Your task to perform on an android device: Open ESPN.com Image 0: 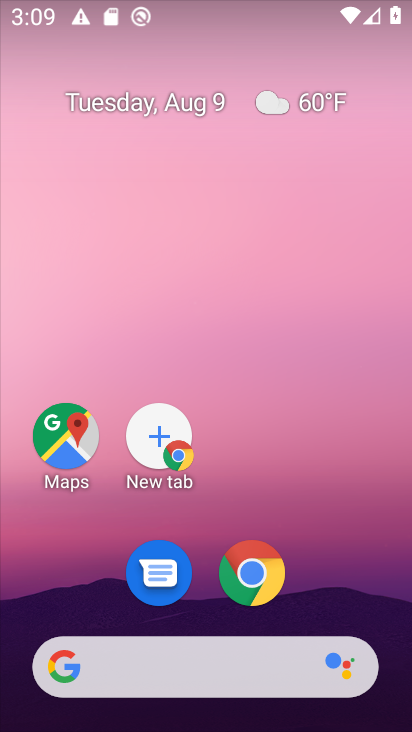
Step 0: click (193, 348)
Your task to perform on an android device: Open ESPN.com Image 1: 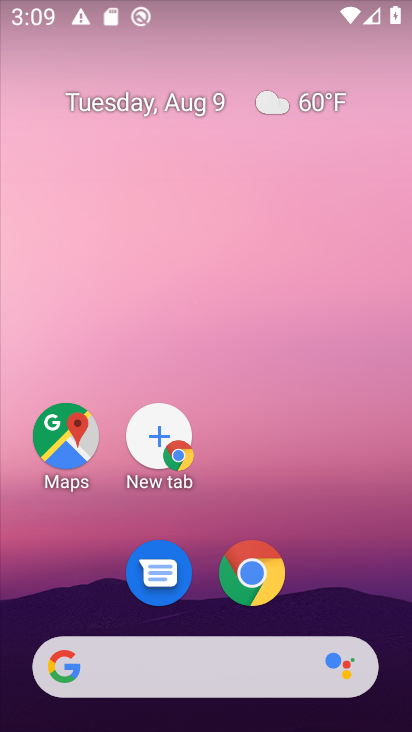
Step 1: drag from (276, 639) to (219, 138)
Your task to perform on an android device: Open ESPN.com Image 2: 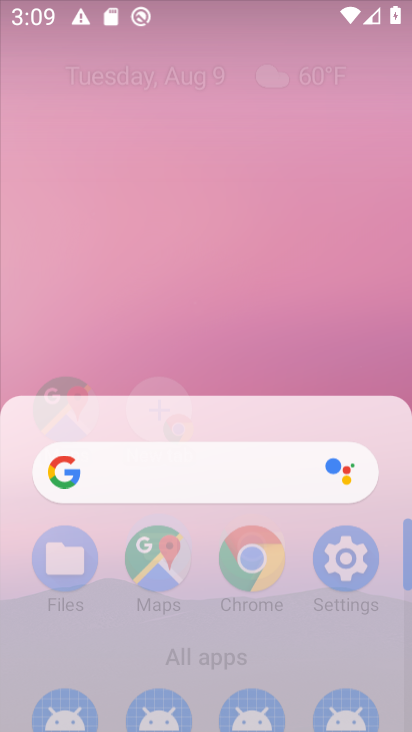
Step 2: drag from (280, 557) to (208, 147)
Your task to perform on an android device: Open ESPN.com Image 3: 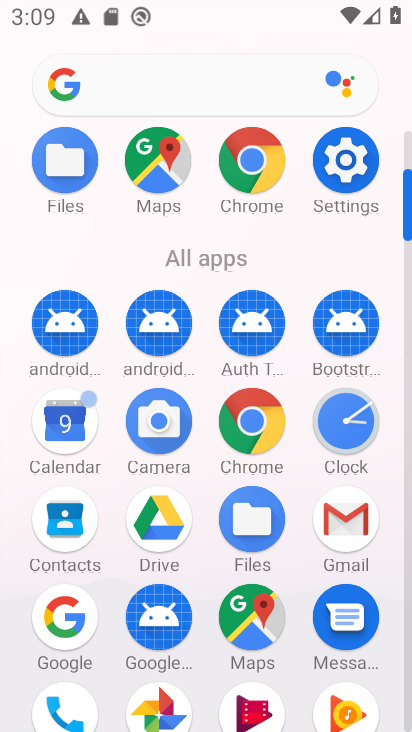
Step 3: drag from (175, 615) to (139, 231)
Your task to perform on an android device: Open ESPN.com Image 4: 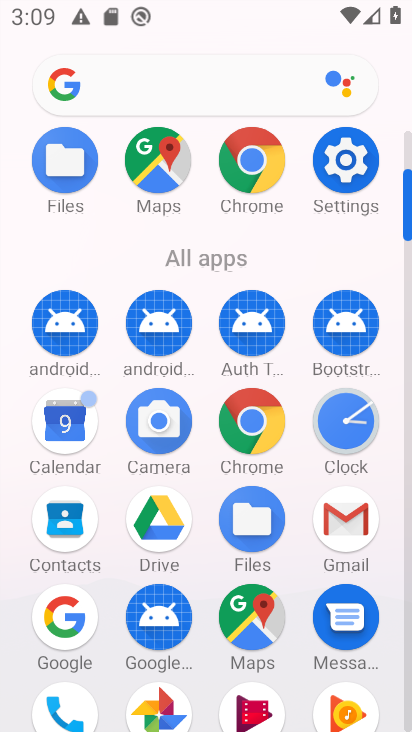
Step 4: click (254, 177)
Your task to perform on an android device: Open ESPN.com Image 5: 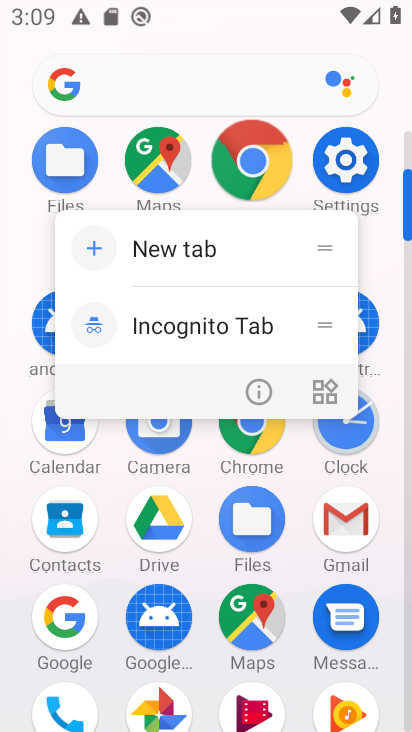
Step 5: click (272, 174)
Your task to perform on an android device: Open ESPN.com Image 6: 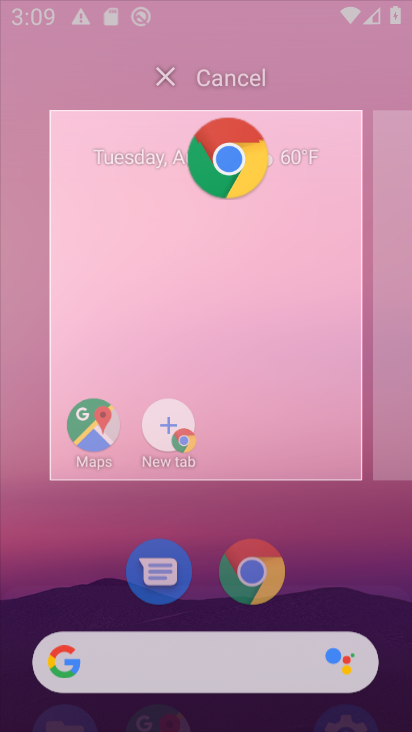
Step 6: click (256, 166)
Your task to perform on an android device: Open ESPN.com Image 7: 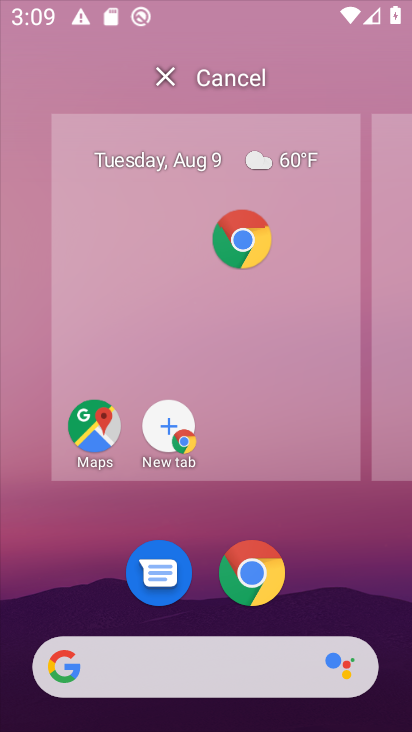
Step 7: click (257, 165)
Your task to perform on an android device: Open ESPN.com Image 8: 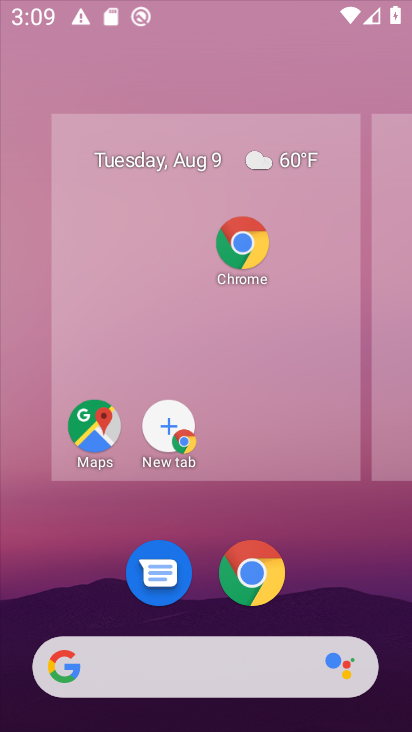
Step 8: drag from (258, 165) to (246, 224)
Your task to perform on an android device: Open ESPN.com Image 9: 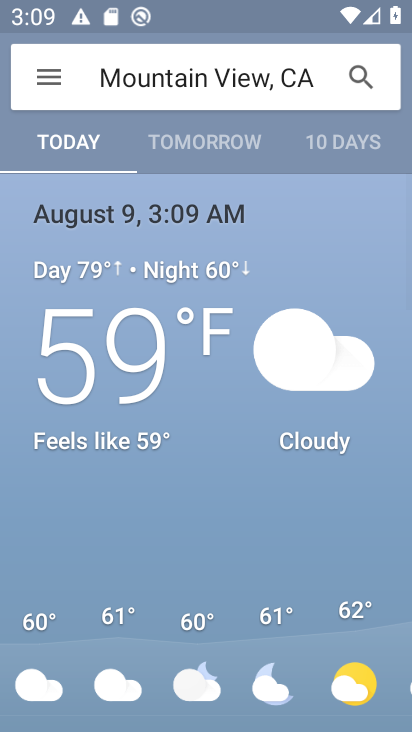
Step 9: drag from (368, 64) to (410, 488)
Your task to perform on an android device: Open ESPN.com Image 10: 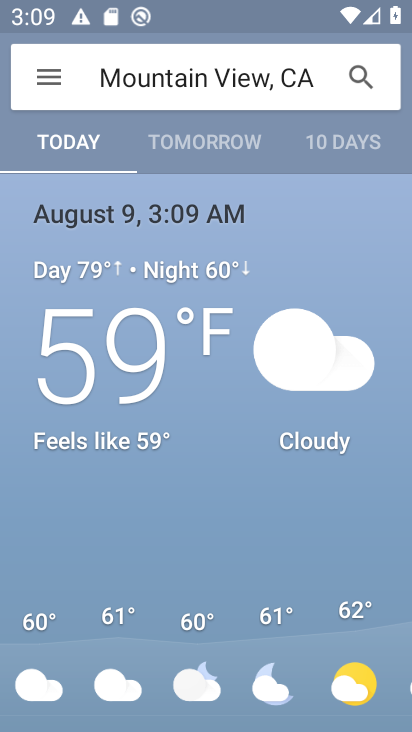
Step 10: press back button
Your task to perform on an android device: Open ESPN.com Image 11: 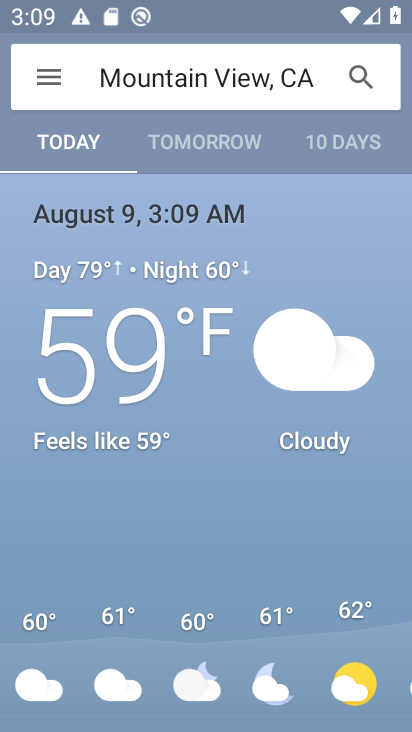
Step 11: press back button
Your task to perform on an android device: Open ESPN.com Image 12: 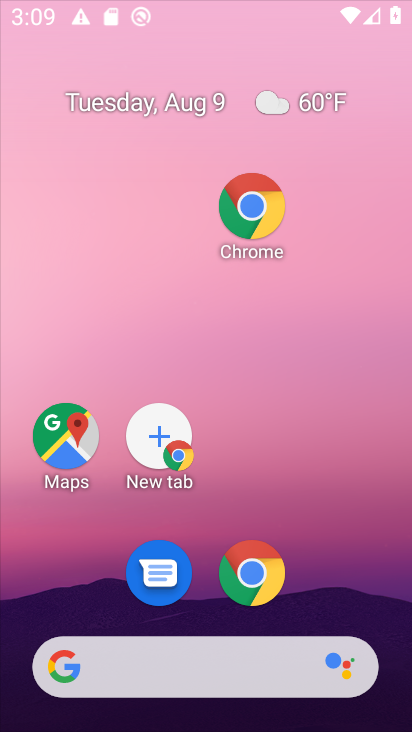
Step 12: press back button
Your task to perform on an android device: Open ESPN.com Image 13: 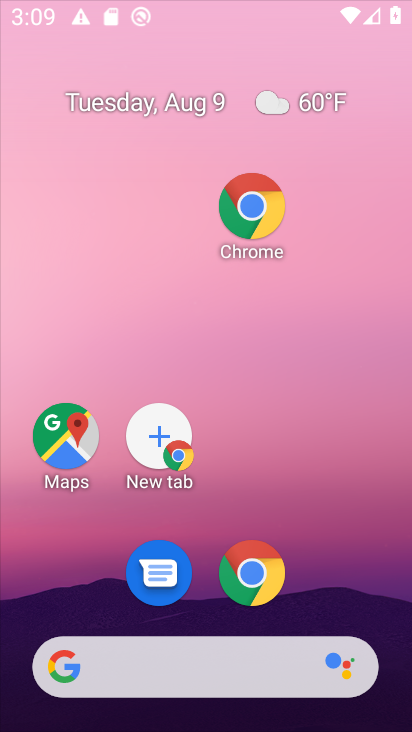
Step 13: click (403, 300)
Your task to perform on an android device: Open ESPN.com Image 14: 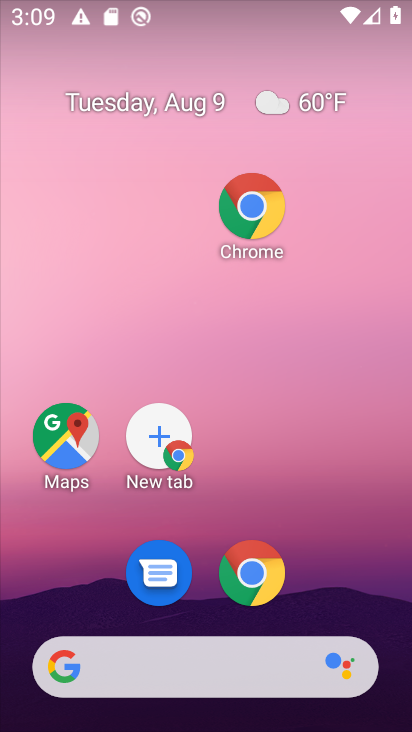
Step 14: click (215, 16)
Your task to perform on an android device: Open ESPN.com Image 15: 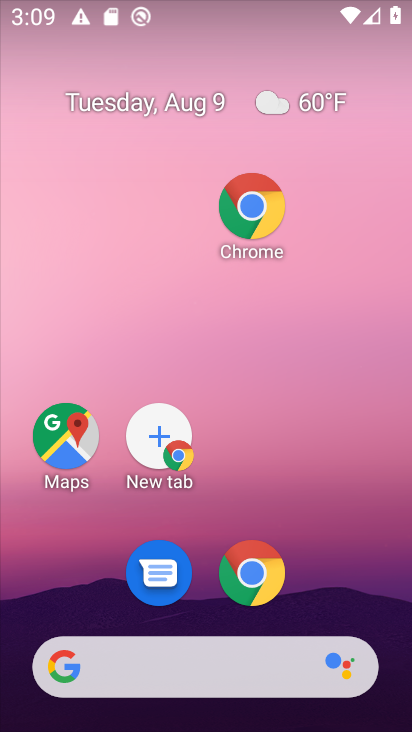
Step 15: drag from (215, 536) to (211, 86)
Your task to perform on an android device: Open ESPN.com Image 16: 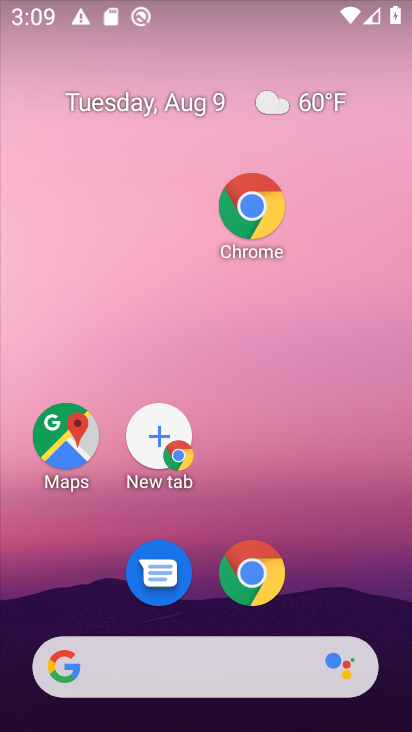
Step 16: drag from (247, 525) to (230, 196)
Your task to perform on an android device: Open ESPN.com Image 17: 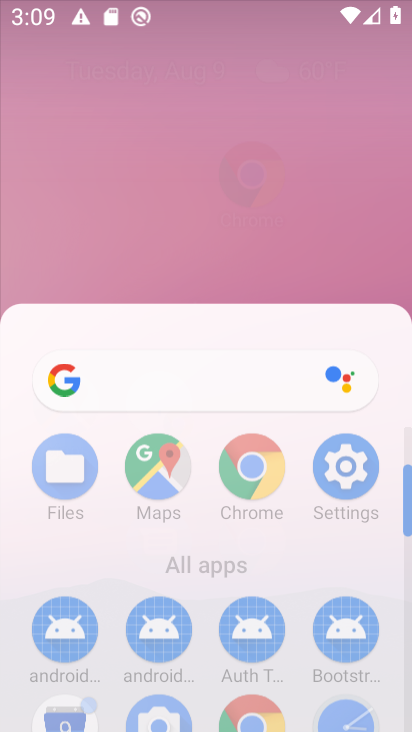
Step 17: drag from (230, 579) to (236, 93)
Your task to perform on an android device: Open ESPN.com Image 18: 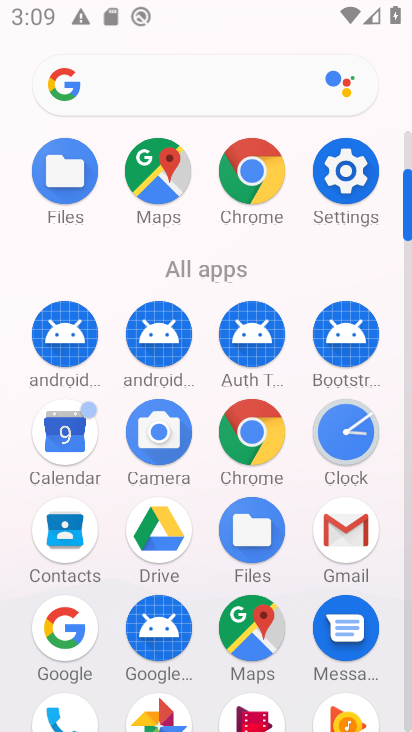
Step 18: drag from (260, 480) to (256, 0)
Your task to perform on an android device: Open ESPN.com Image 19: 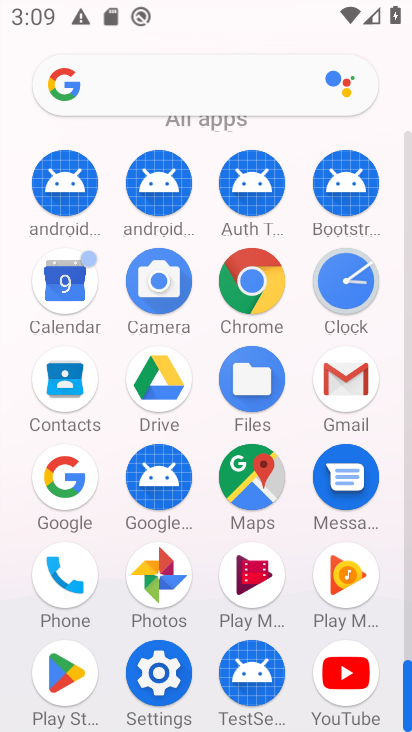
Step 19: click (245, 295)
Your task to perform on an android device: Open ESPN.com Image 20: 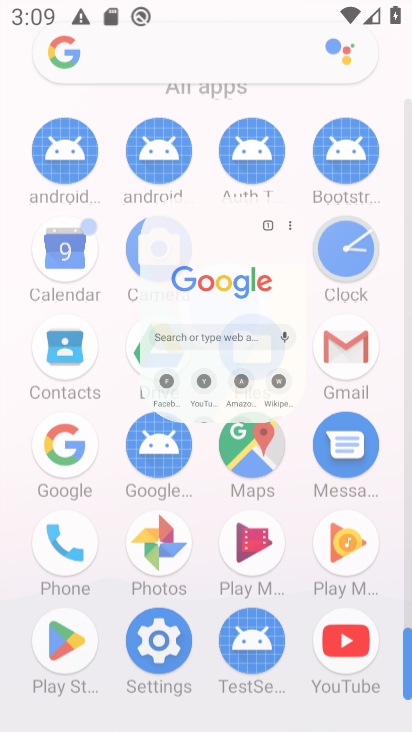
Step 20: click (247, 293)
Your task to perform on an android device: Open ESPN.com Image 21: 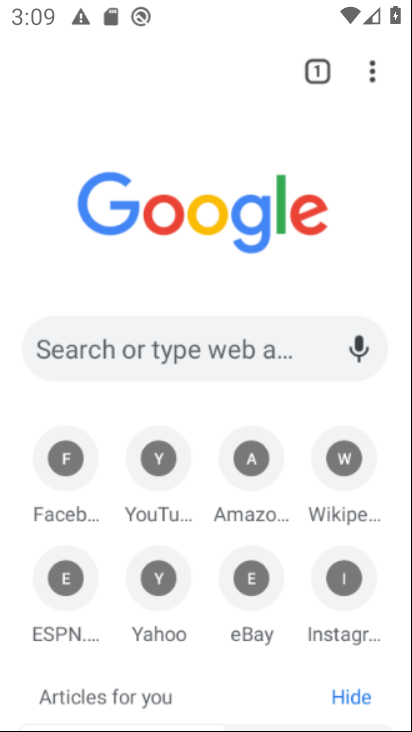
Step 21: click (247, 293)
Your task to perform on an android device: Open ESPN.com Image 22: 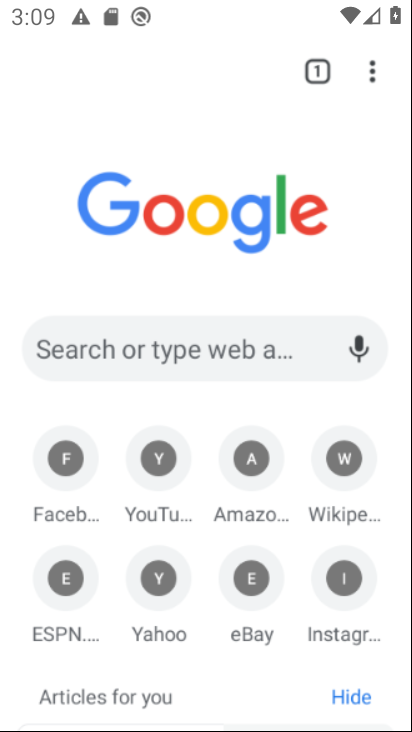
Step 22: click (71, 605)
Your task to perform on an android device: Open ESPN.com Image 23: 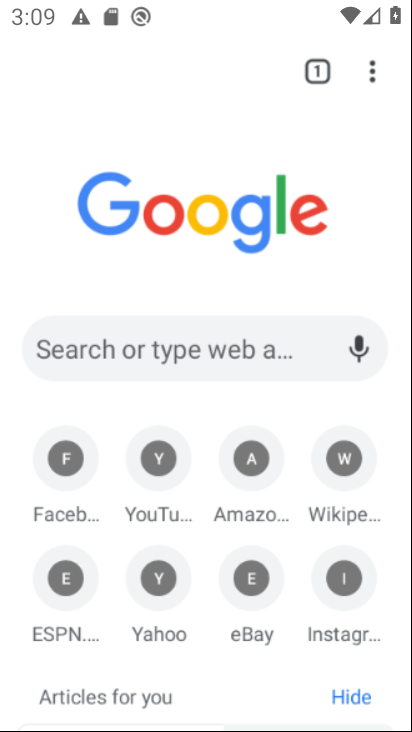
Step 23: click (65, 602)
Your task to perform on an android device: Open ESPN.com Image 24: 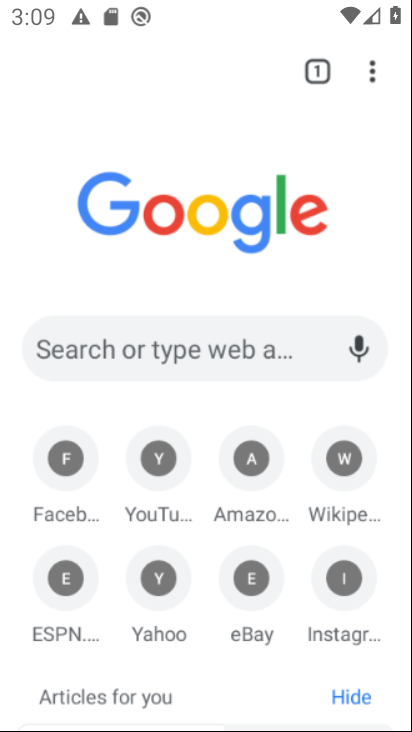
Step 24: click (64, 604)
Your task to perform on an android device: Open ESPN.com Image 25: 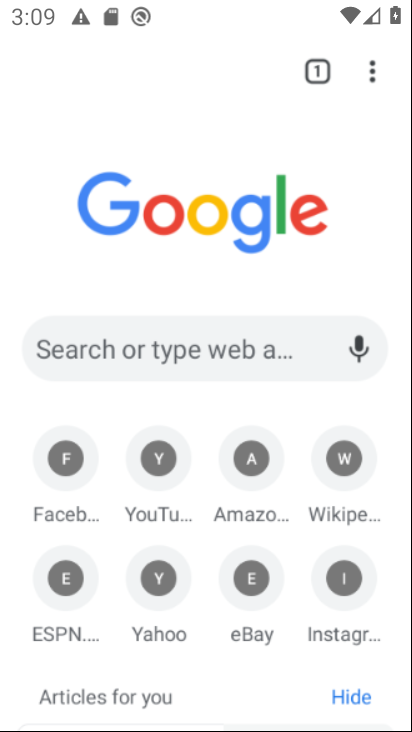
Step 25: click (68, 592)
Your task to perform on an android device: Open ESPN.com Image 26: 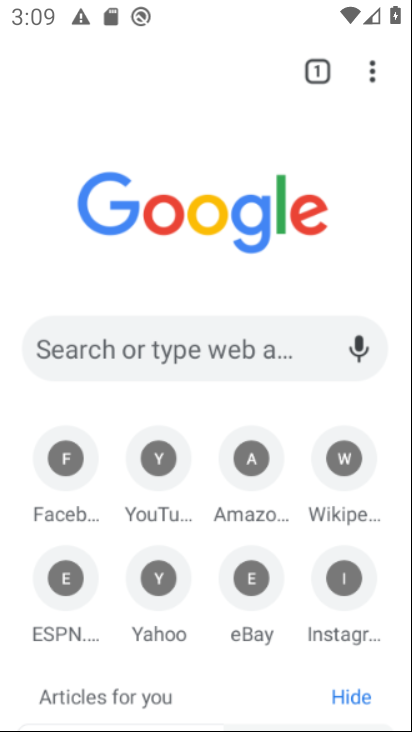
Step 26: click (67, 565)
Your task to perform on an android device: Open ESPN.com Image 27: 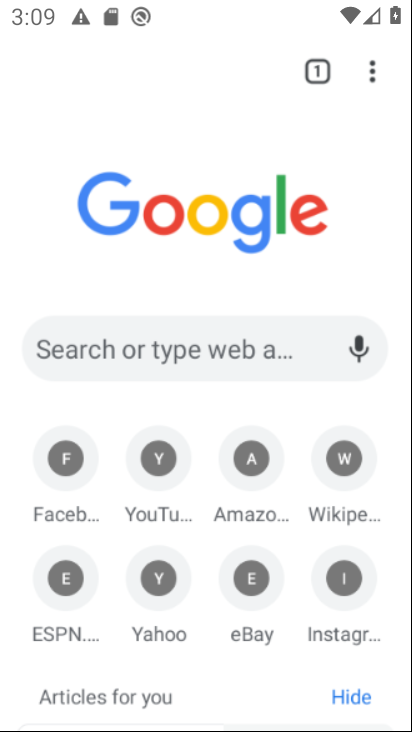
Step 27: click (65, 591)
Your task to perform on an android device: Open ESPN.com Image 28: 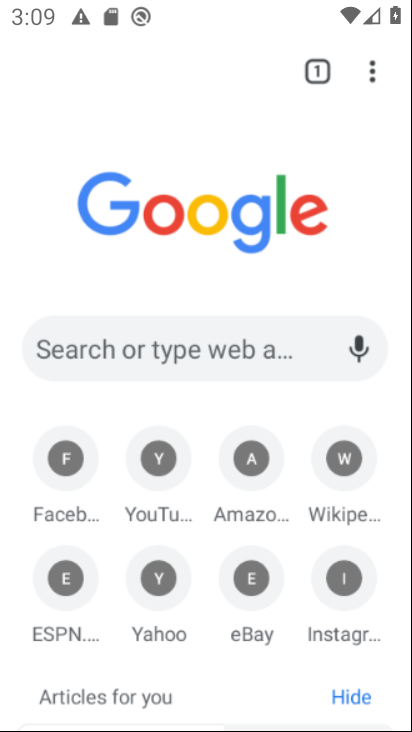
Step 28: click (62, 587)
Your task to perform on an android device: Open ESPN.com Image 29: 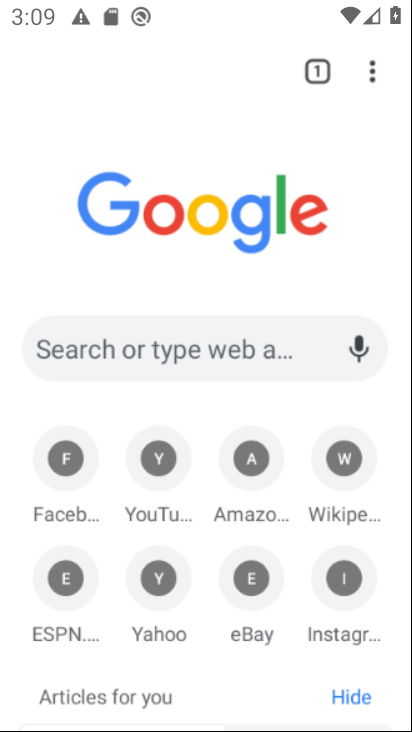
Step 29: click (66, 619)
Your task to perform on an android device: Open ESPN.com Image 30: 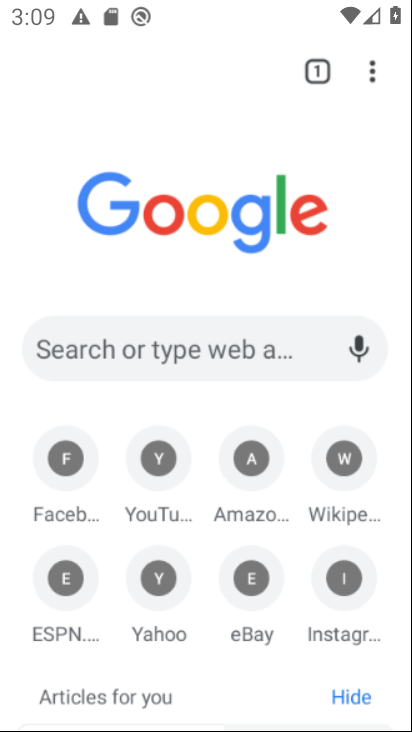
Step 30: click (65, 615)
Your task to perform on an android device: Open ESPN.com Image 31: 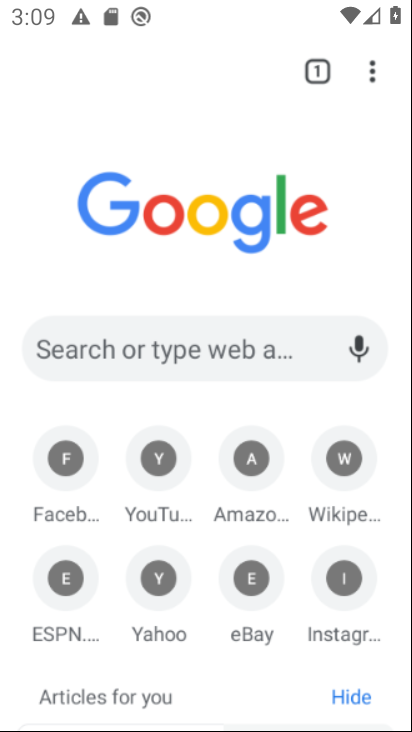
Step 31: click (58, 571)
Your task to perform on an android device: Open ESPN.com Image 32: 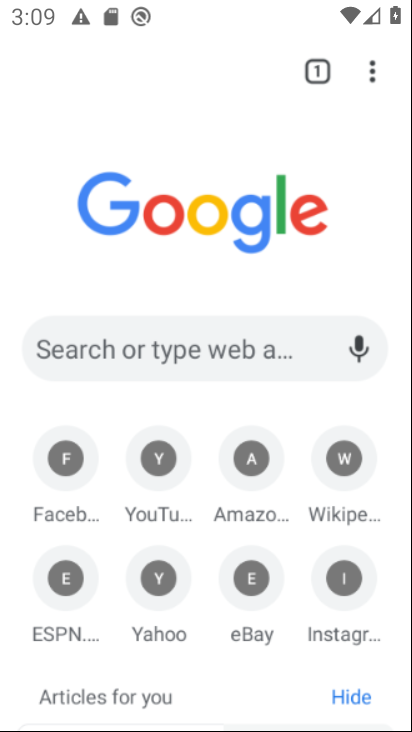
Step 32: click (57, 573)
Your task to perform on an android device: Open ESPN.com Image 33: 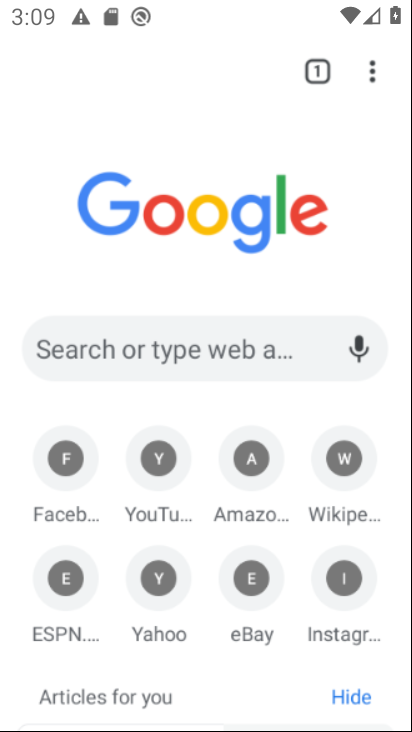
Step 33: click (57, 573)
Your task to perform on an android device: Open ESPN.com Image 34: 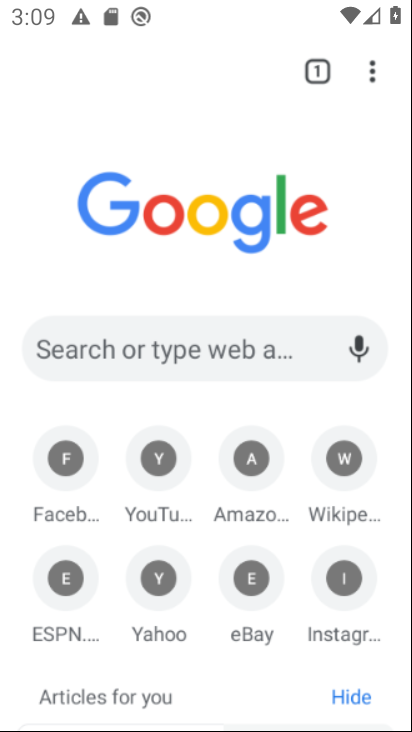
Step 34: click (50, 575)
Your task to perform on an android device: Open ESPN.com Image 35: 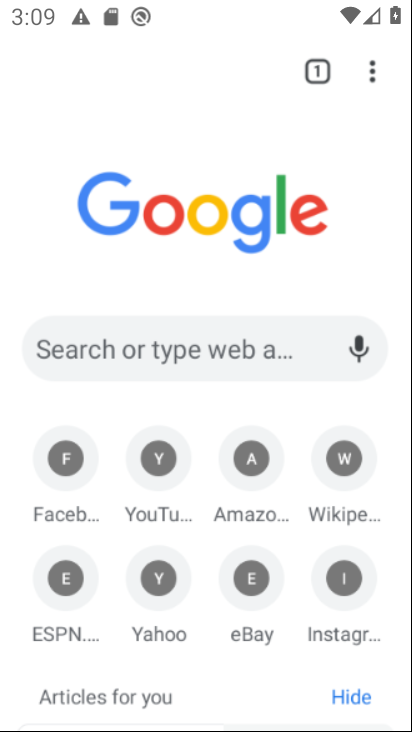
Step 35: click (56, 571)
Your task to perform on an android device: Open ESPN.com Image 36: 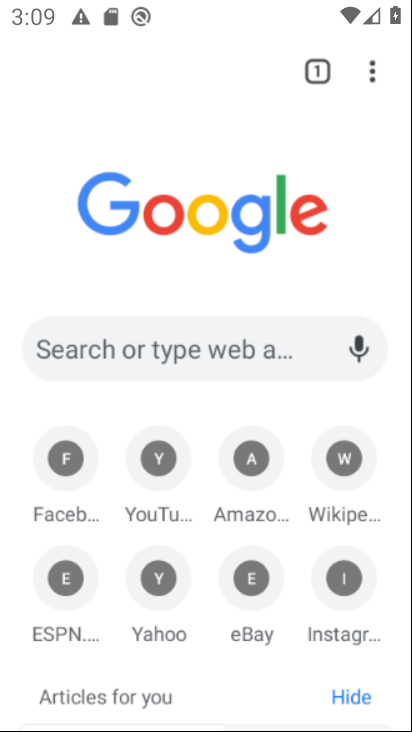
Step 36: click (68, 597)
Your task to perform on an android device: Open ESPN.com Image 37: 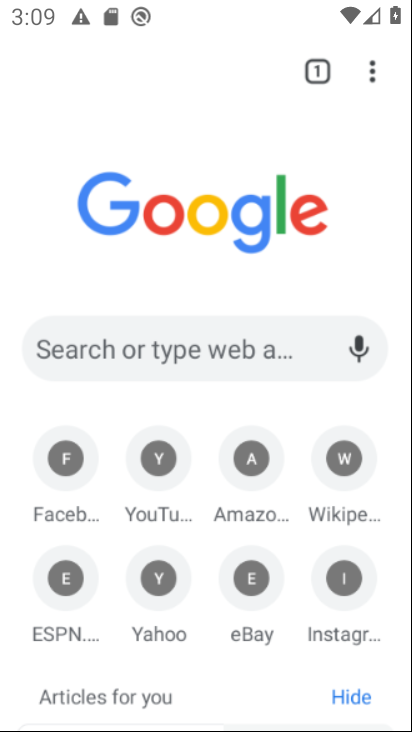
Step 37: click (64, 590)
Your task to perform on an android device: Open ESPN.com Image 38: 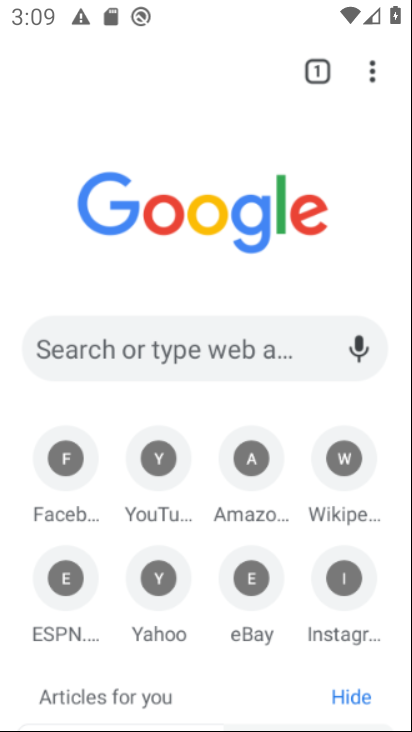
Step 38: click (67, 590)
Your task to perform on an android device: Open ESPN.com Image 39: 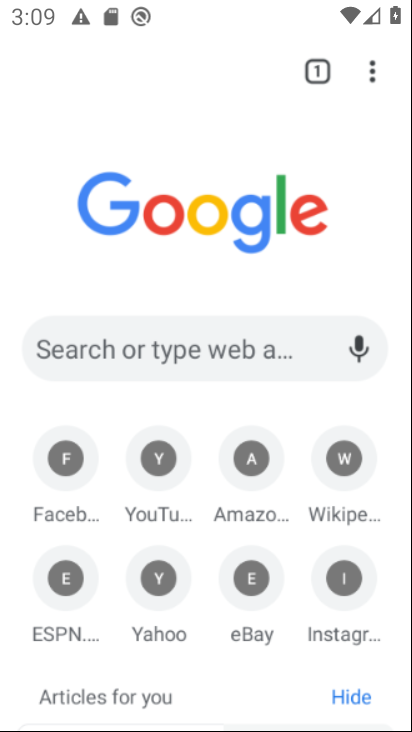
Step 39: click (89, 588)
Your task to perform on an android device: Open ESPN.com Image 40: 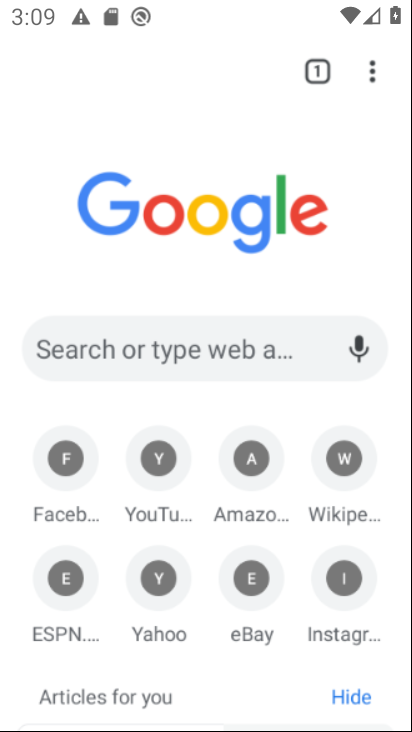
Step 40: click (70, 585)
Your task to perform on an android device: Open ESPN.com Image 41: 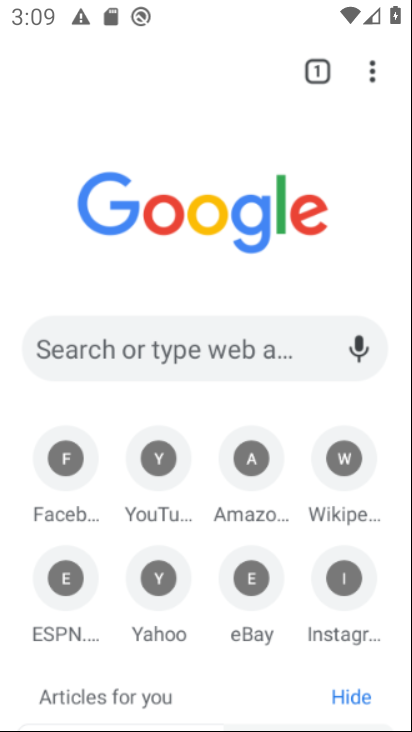
Step 41: click (63, 576)
Your task to perform on an android device: Open ESPN.com Image 42: 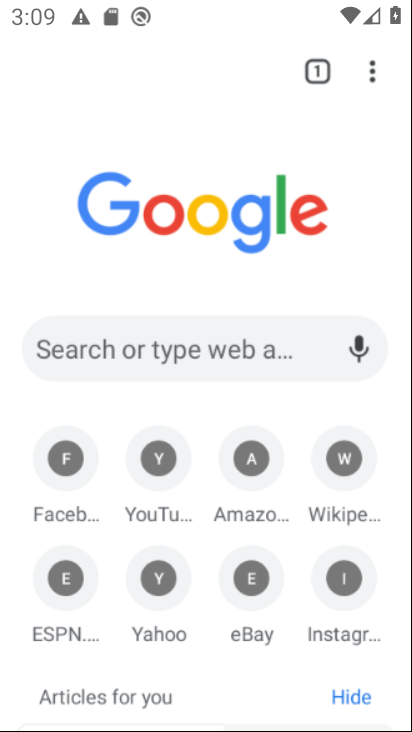
Step 42: click (67, 572)
Your task to perform on an android device: Open ESPN.com Image 43: 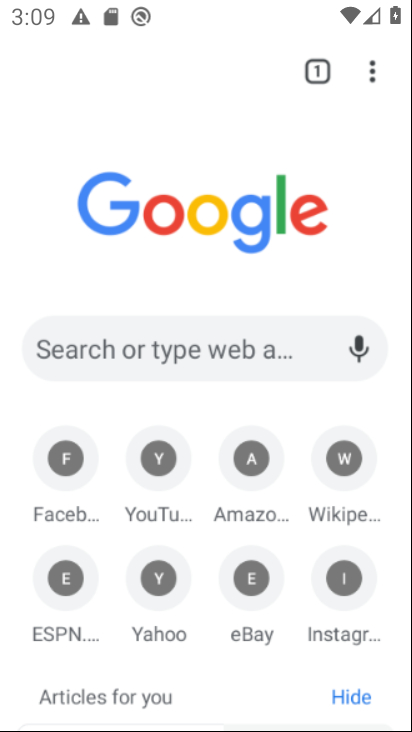
Step 43: click (62, 595)
Your task to perform on an android device: Open ESPN.com Image 44: 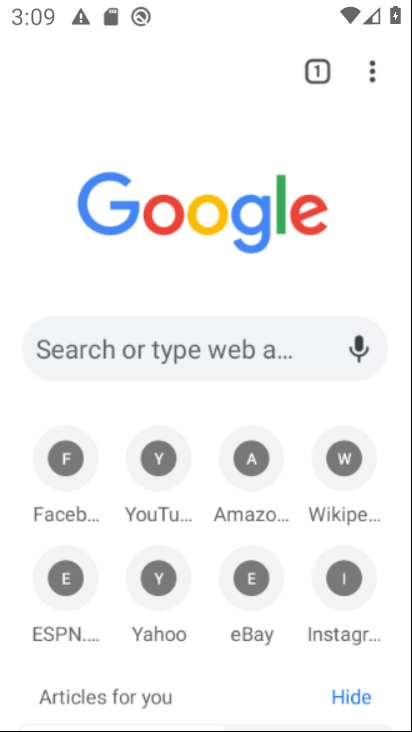
Step 44: click (99, 343)
Your task to perform on an android device: Open ESPN.com Image 45: 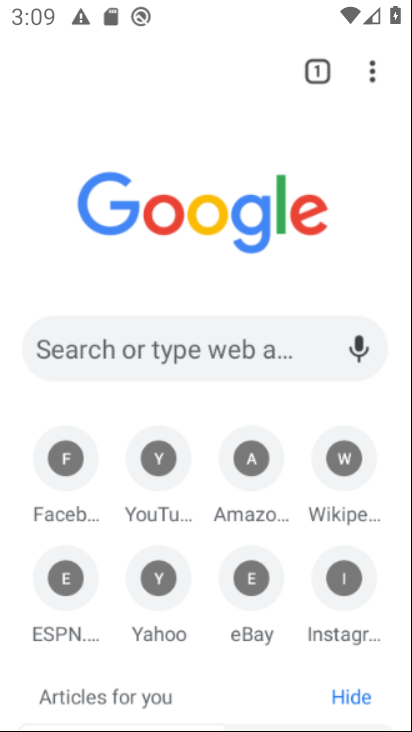
Step 45: click (50, 551)
Your task to perform on an android device: Open ESPN.com Image 46: 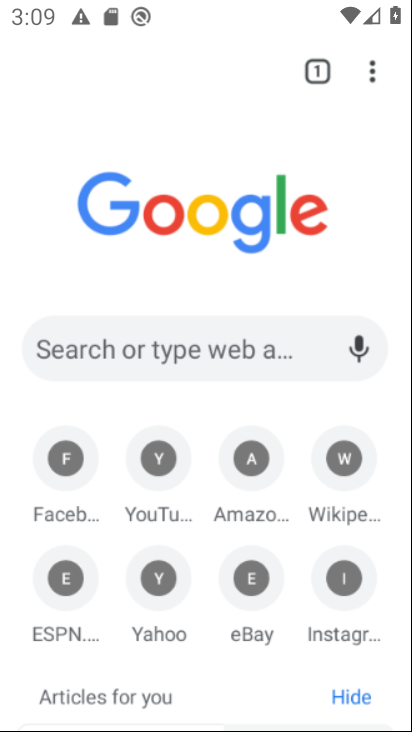
Step 46: task complete